Your task to perform on an android device: change the clock display to analog Image 0: 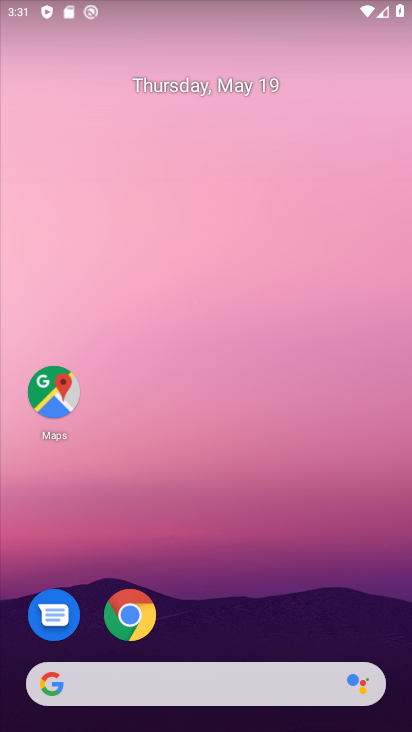
Step 0: drag from (294, 586) to (157, 67)
Your task to perform on an android device: change the clock display to analog Image 1: 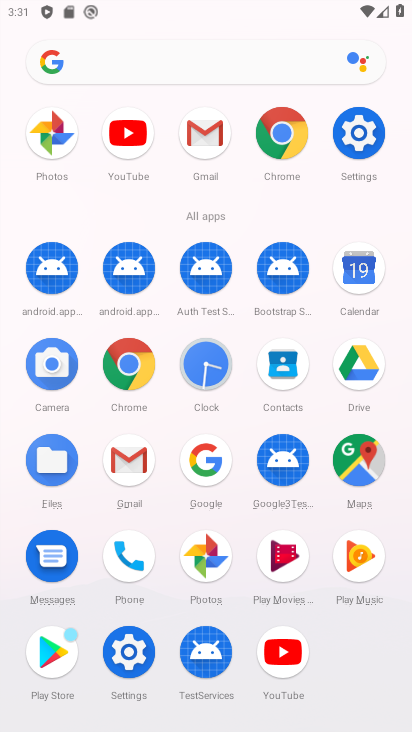
Step 1: click (207, 365)
Your task to perform on an android device: change the clock display to analog Image 2: 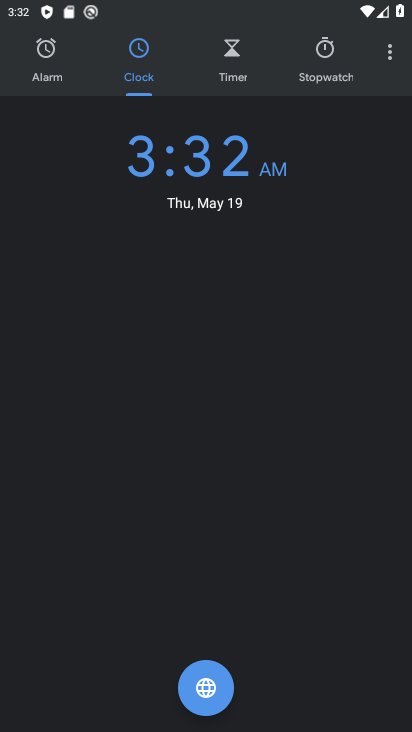
Step 2: click (384, 48)
Your task to perform on an android device: change the clock display to analog Image 3: 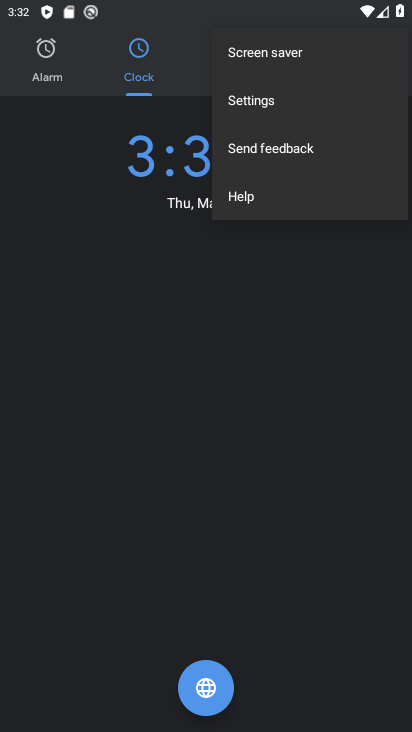
Step 3: click (253, 104)
Your task to perform on an android device: change the clock display to analog Image 4: 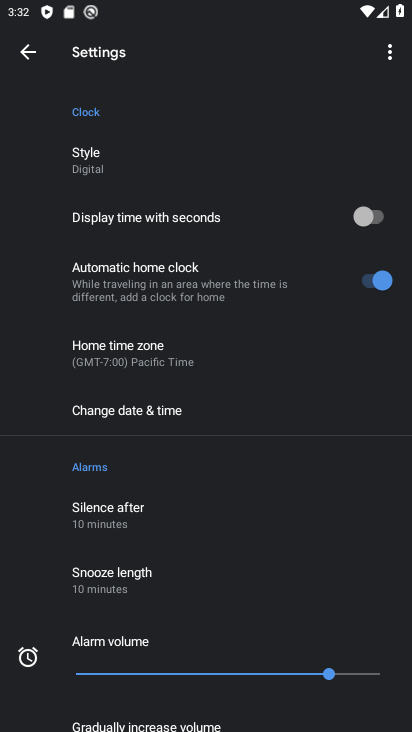
Step 4: click (139, 165)
Your task to perform on an android device: change the clock display to analog Image 5: 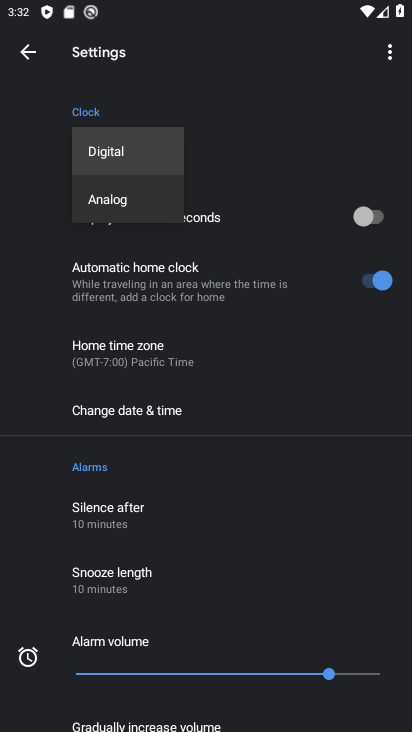
Step 5: click (130, 197)
Your task to perform on an android device: change the clock display to analog Image 6: 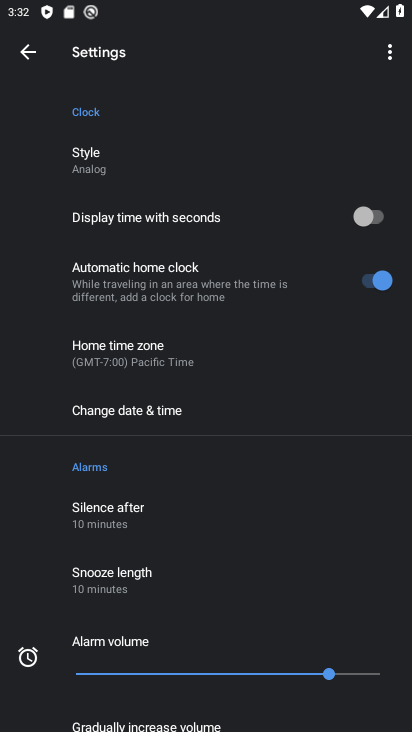
Step 6: task complete